Your task to perform on an android device: turn off airplane mode Image 0: 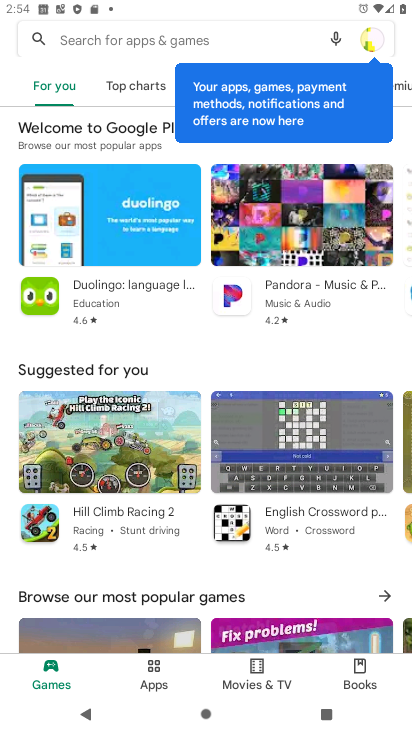
Step 0: drag from (315, 2) to (334, 684)
Your task to perform on an android device: turn off airplane mode Image 1: 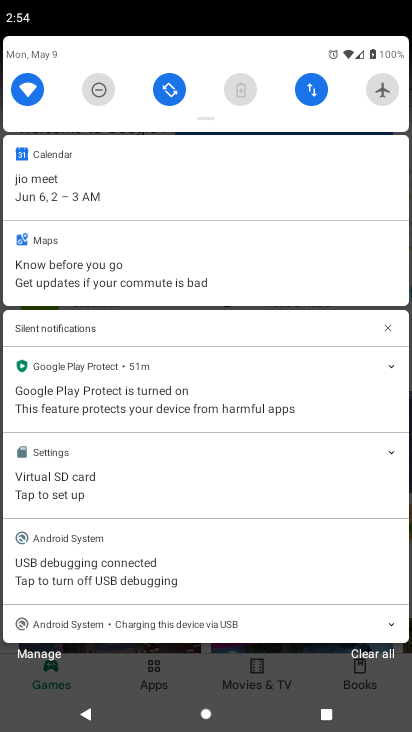
Step 1: task complete